Your task to perform on an android device: Search for vegetarian restaurants on Maps Image 0: 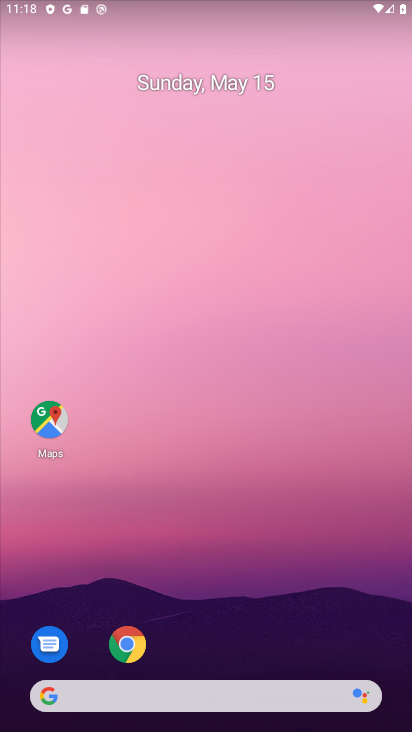
Step 0: drag from (227, 418) to (227, 242)
Your task to perform on an android device: Search for vegetarian restaurants on Maps Image 1: 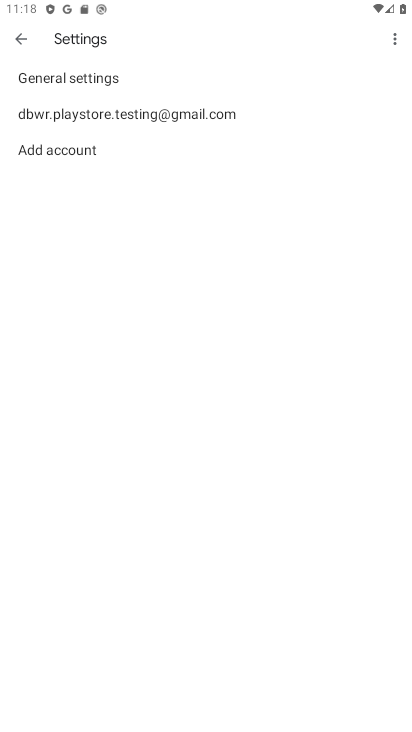
Step 1: press home button
Your task to perform on an android device: Search for vegetarian restaurants on Maps Image 2: 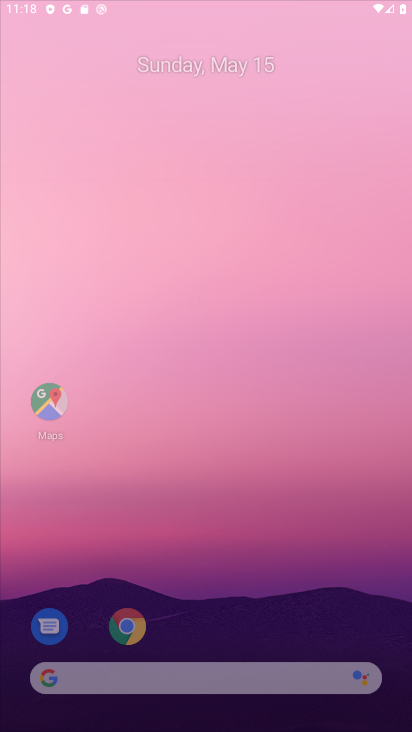
Step 2: drag from (112, 617) to (179, 204)
Your task to perform on an android device: Search for vegetarian restaurants on Maps Image 3: 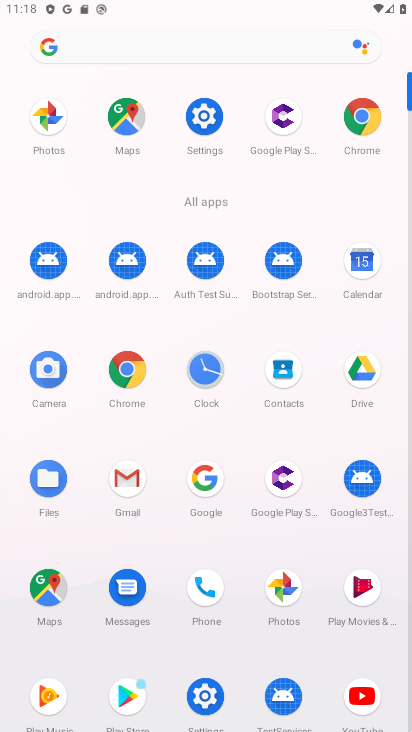
Step 3: click (44, 583)
Your task to perform on an android device: Search for vegetarian restaurants on Maps Image 4: 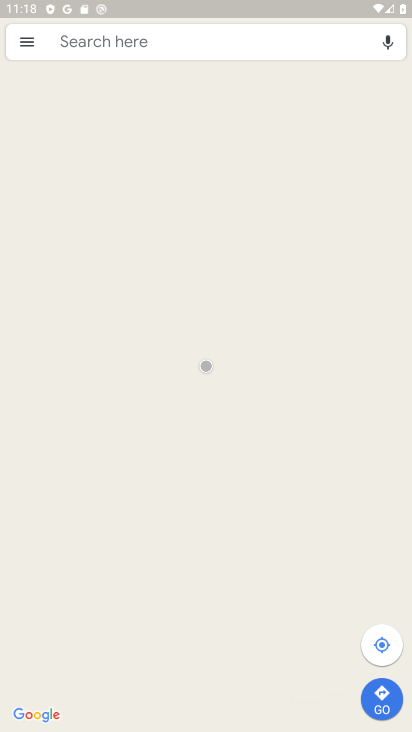
Step 4: click (228, 45)
Your task to perform on an android device: Search for vegetarian restaurants on Maps Image 5: 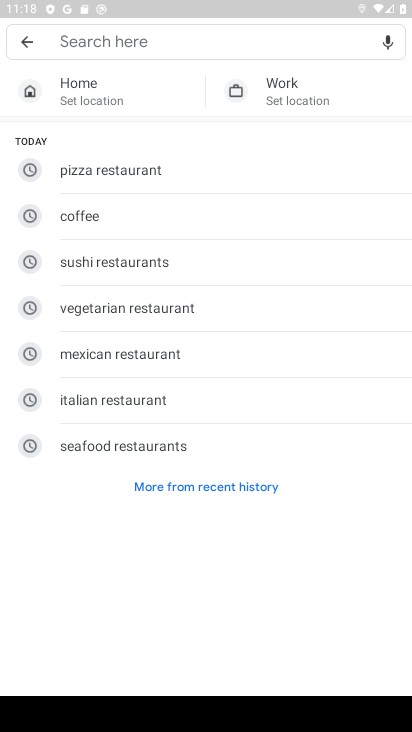
Step 5: click (136, 318)
Your task to perform on an android device: Search for vegetarian restaurants on Maps Image 6: 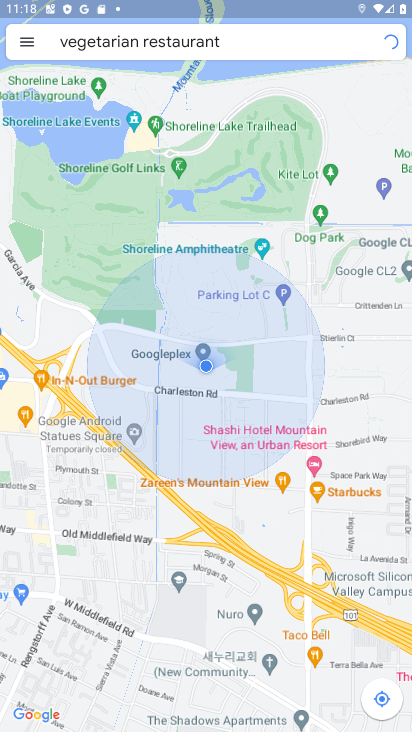
Step 6: task complete